Your task to perform on an android device: Search for pizza restaurants on Maps Image 0: 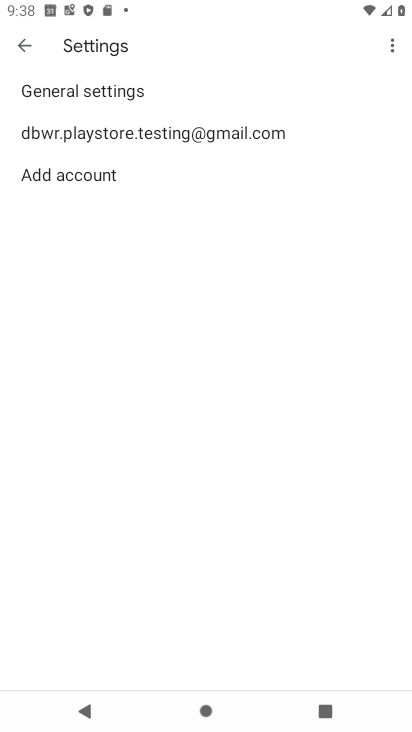
Step 0: press home button
Your task to perform on an android device: Search for pizza restaurants on Maps Image 1: 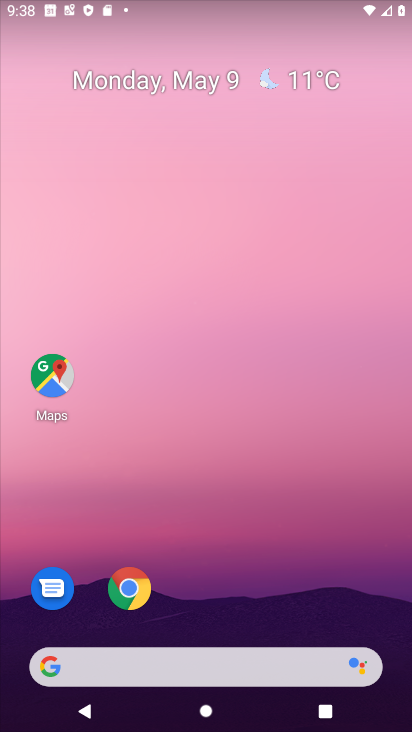
Step 1: drag from (158, 663) to (252, 286)
Your task to perform on an android device: Search for pizza restaurants on Maps Image 2: 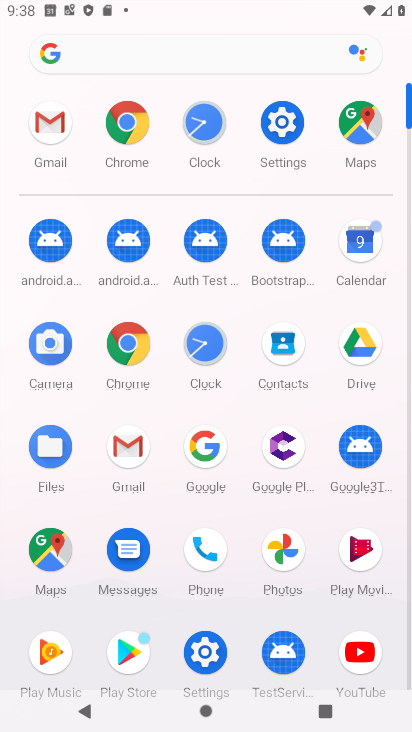
Step 2: click (366, 136)
Your task to perform on an android device: Search for pizza restaurants on Maps Image 3: 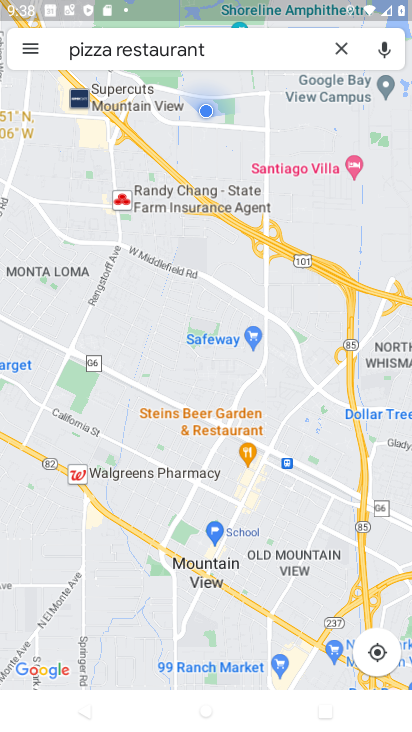
Step 3: click (340, 45)
Your task to perform on an android device: Search for pizza restaurants on Maps Image 4: 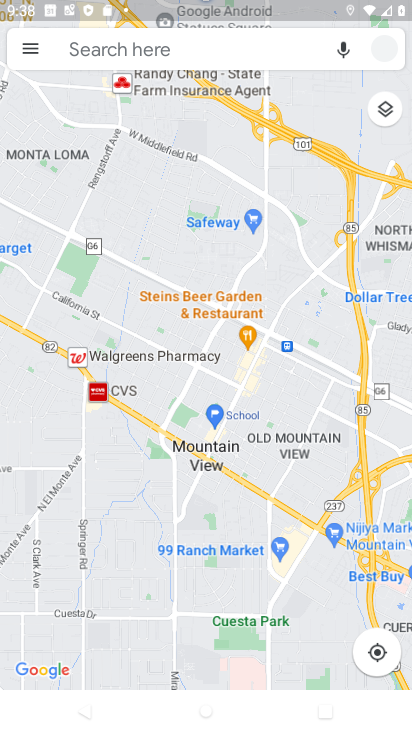
Step 4: click (227, 55)
Your task to perform on an android device: Search for pizza restaurants on Maps Image 5: 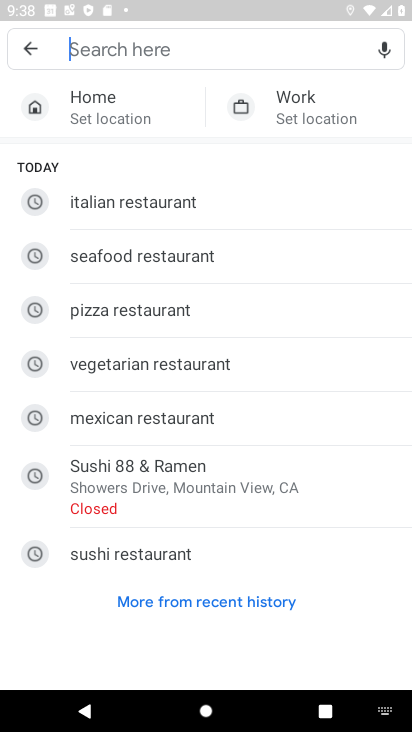
Step 5: click (152, 312)
Your task to perform on an android device: Search for pizza restaurants on Maps Image 6: 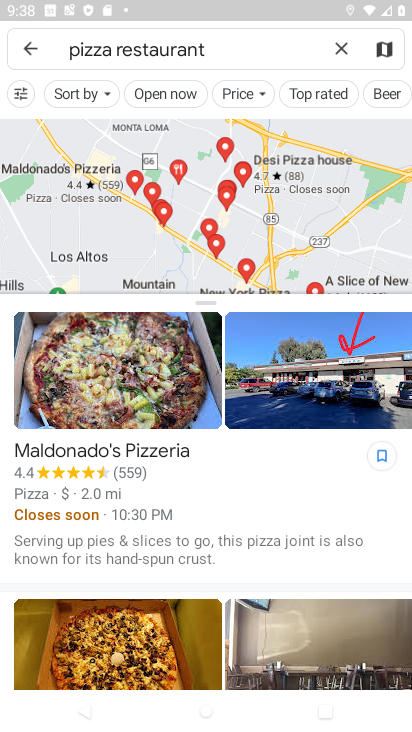
Step 6: task complete